Your task to perform on an android device: Find coffee shops on Maps Image 0: 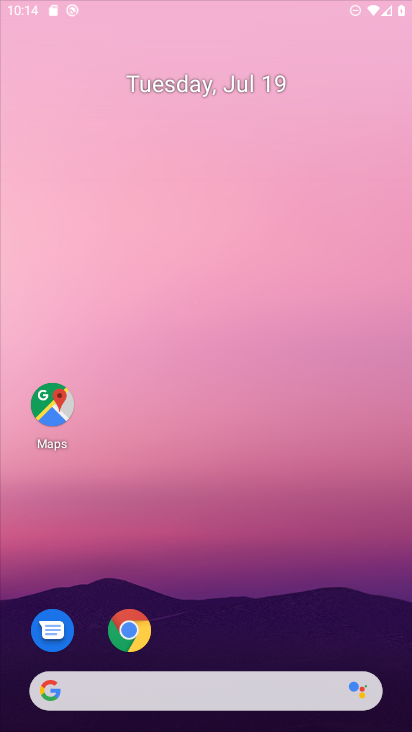
Step 0: drag from (109, 491) to (195, 169)
Your task to perform on an android device: Find coffee shops on Maps Image 1: 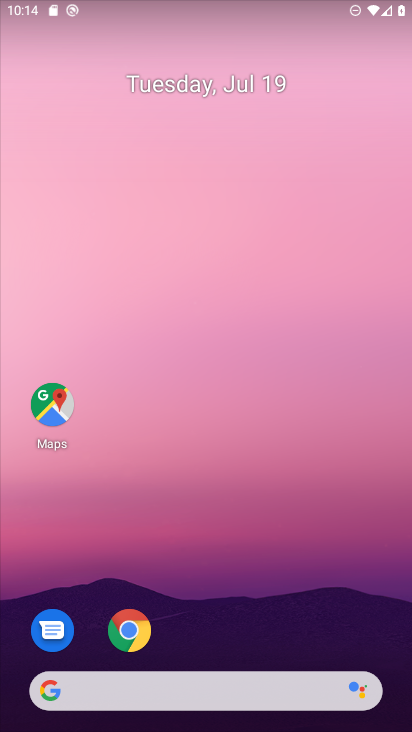
Step 1: click (59, 405)
Your task to perform on an android device: Find coffee shops on Maps Image 2: 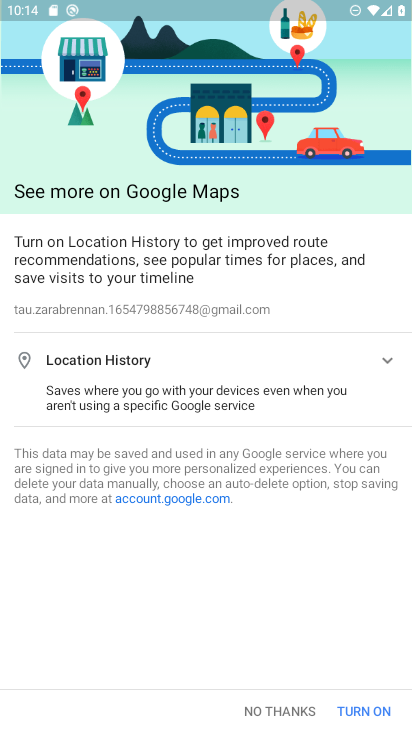
Step 2: click (368, 716)
Your task to perform on an android device: Find coffee shops on Maps Image 3: 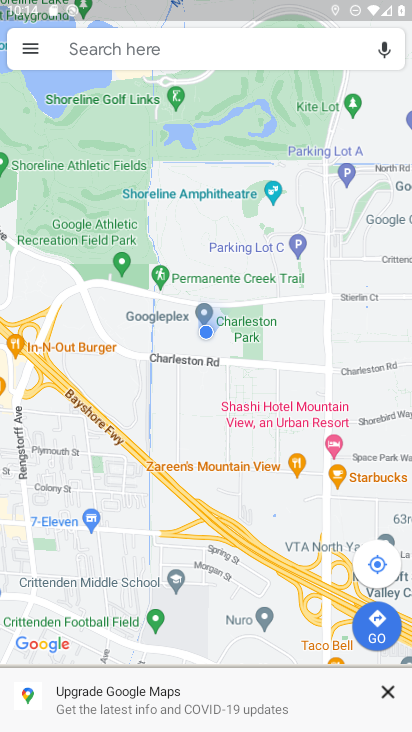
Step 3: click (88, 46)
Your task to perform on an android device: Find coffee shops on Maps Image 4: 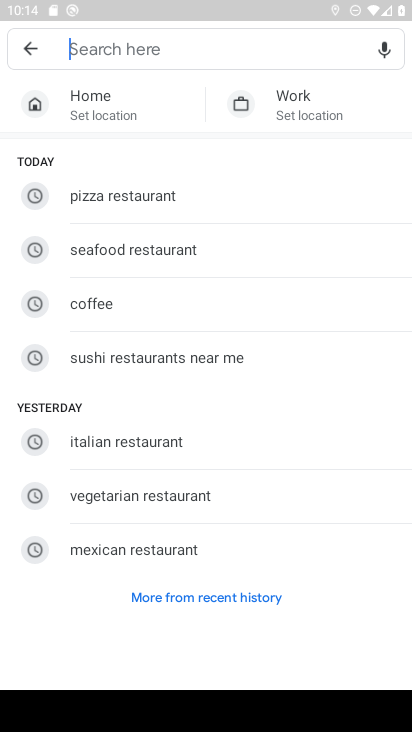
Step 4: type "coffee shops"
Your task to perform on an android device: Find coffee shops on Maps Image 5: 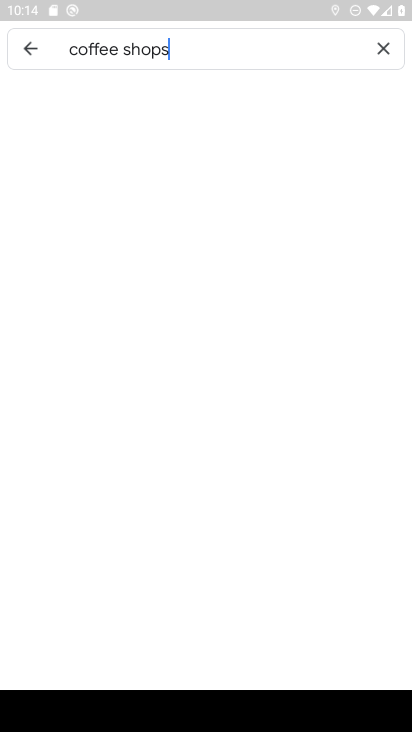
Step 5: type ""
Your task to perform on an android device: Find coffee shops on Maps Image 6: 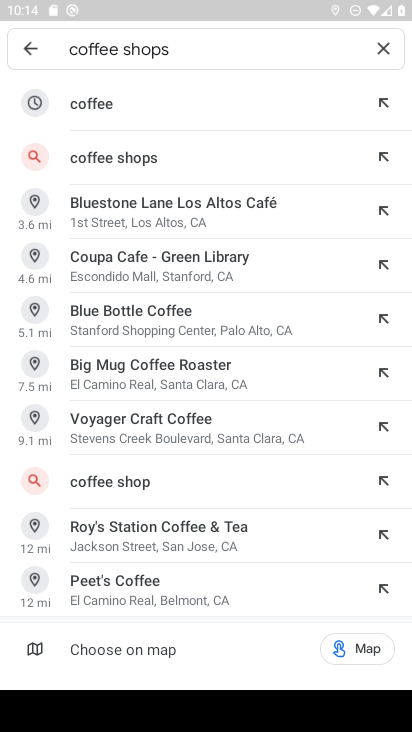
Step 6: click (191, 152)
Your task to perform on an android device: Find coffee shops on Maps Image 7: 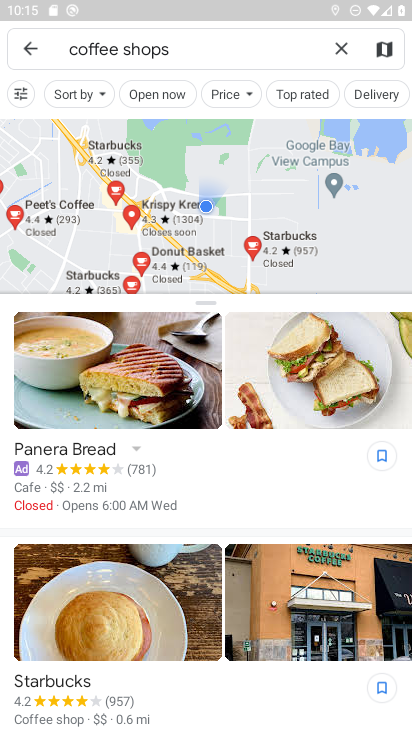
Step 7: task complete